Your task to perform on an android device: toggle location history Image 0: 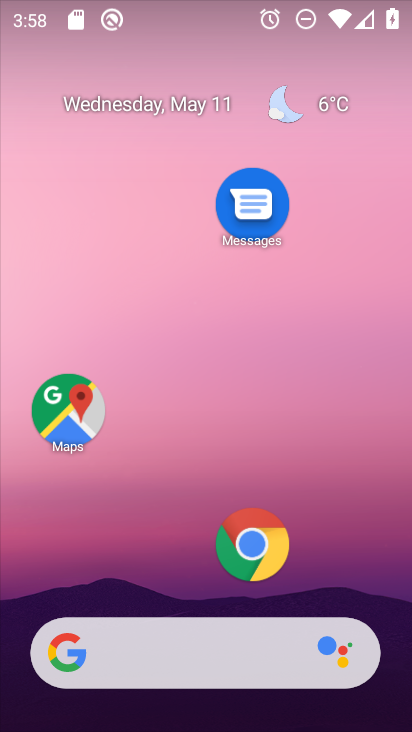
Step 0: drag from (157, 509) to (288, 63)
Your task to perform on an android device: toggle location history Image 1: 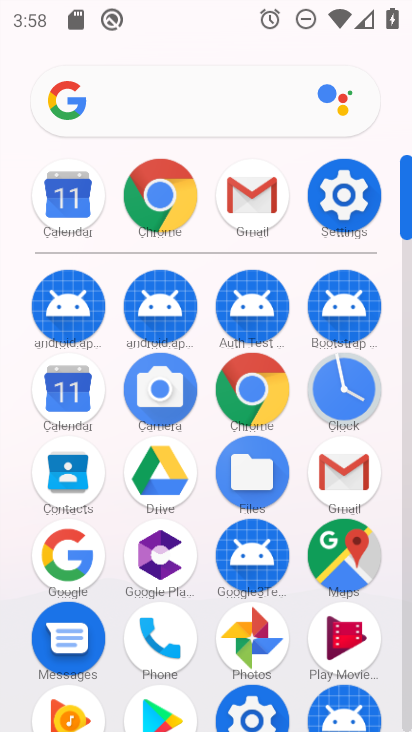
Step 1: click (343, 191)
Your task to perform on an android device: toggle location history Image 2: 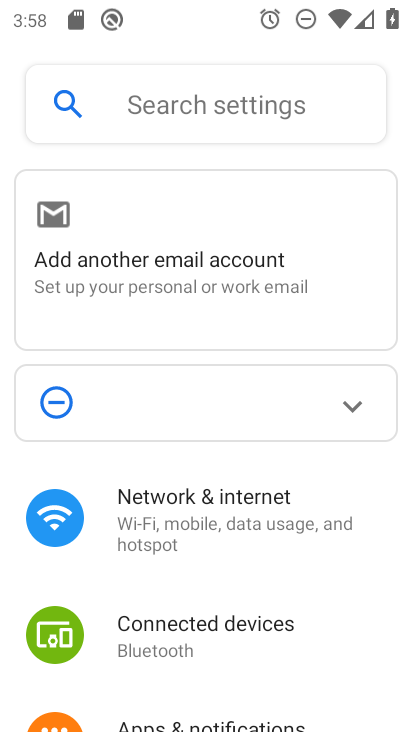
Step 2: drag from (184, 628) to (360, 50)
Your task to perform on an android device: toggle location history Image 3: 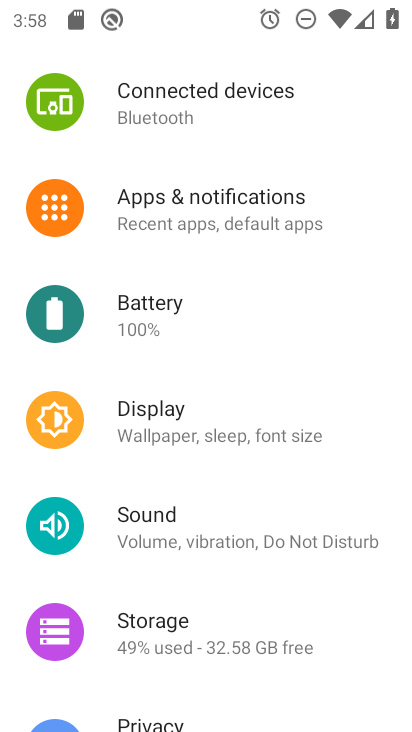
Step 3: drag from (198, 679) to (325, 109)
Your task to perform on an android device: toggle location history Image 4: 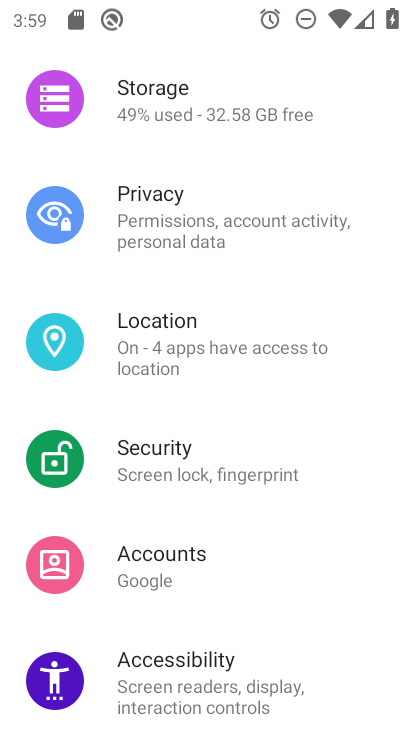
Step 4: click (154, 354)
Your task to perform on an android device: toggle location history Image 5: 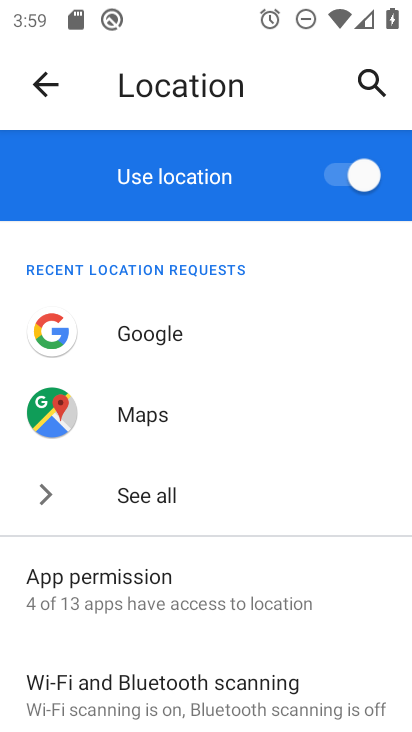
Step 5: drag from (193, 679) to (301, 177)
Your task to perform on an android device: toggle location history Image 6: 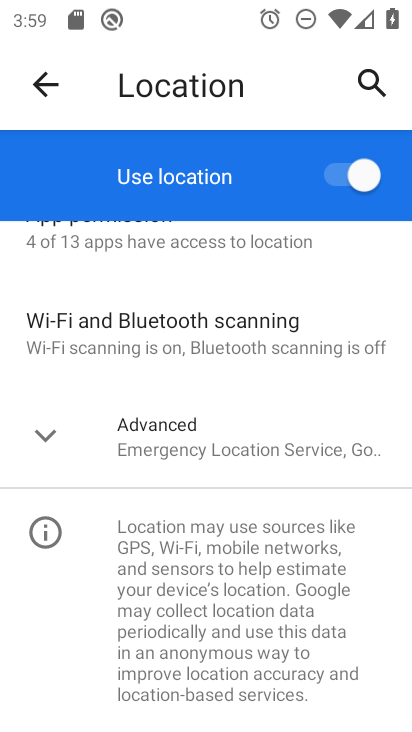
Step 6: click (177, 446)
Your task to perform on an android device: toggle location history Image 7: 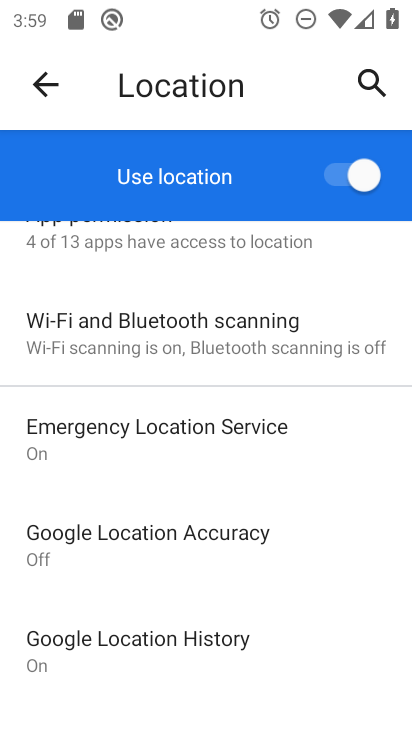
Step 7: click (150, 639)
Your task to perform on an android device: toggle location history Image 8: 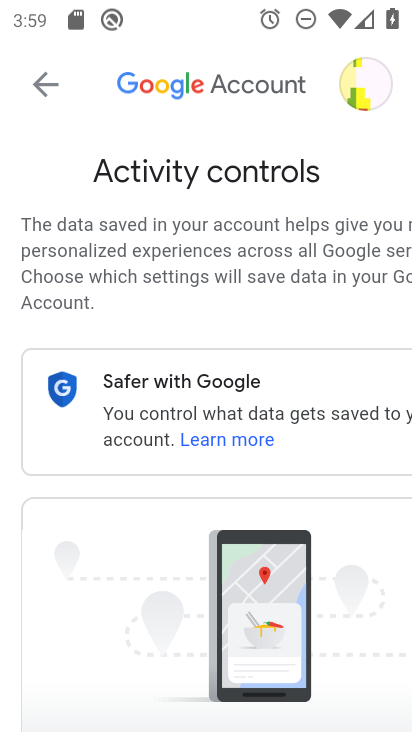
Step 8: drag from (164, 610) to (274, 32)
Your task to perform on an android device: toggle location history Image 9: 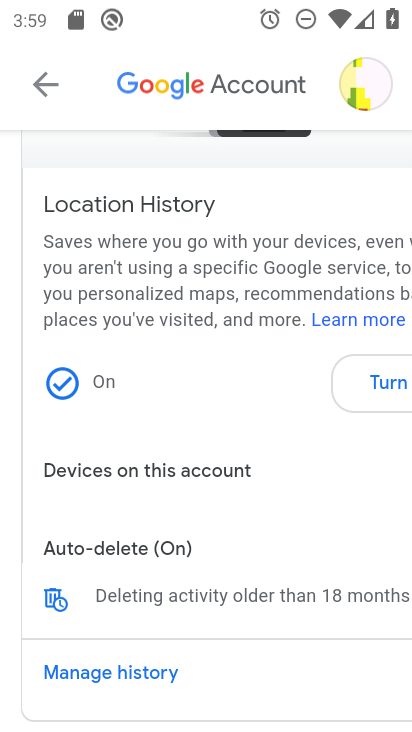
Step 9: drag from (282, 492) to (67, 465)
Your task to perform on an android device: toggle location history Image 10: 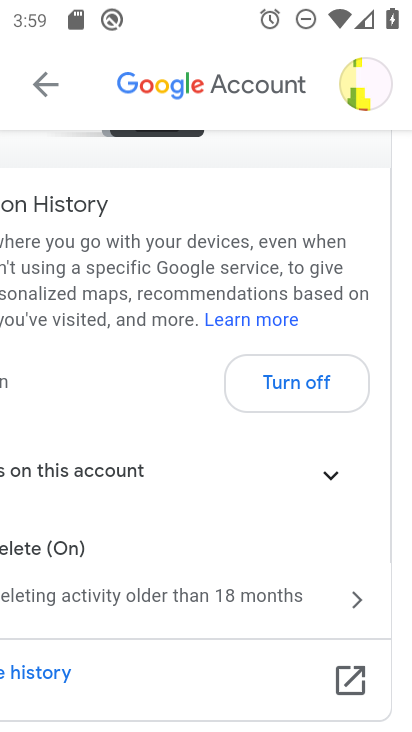
Step 10: click (283, 378)
Your task to perform on an android device: toggle location history Image 11: 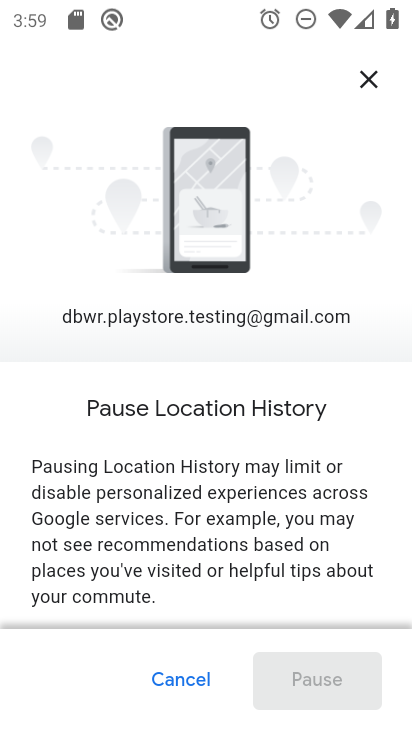
Step 11: drag from (230, 585) to (317, 42)
Your task to perform on an android device: toggle location history Image 12: 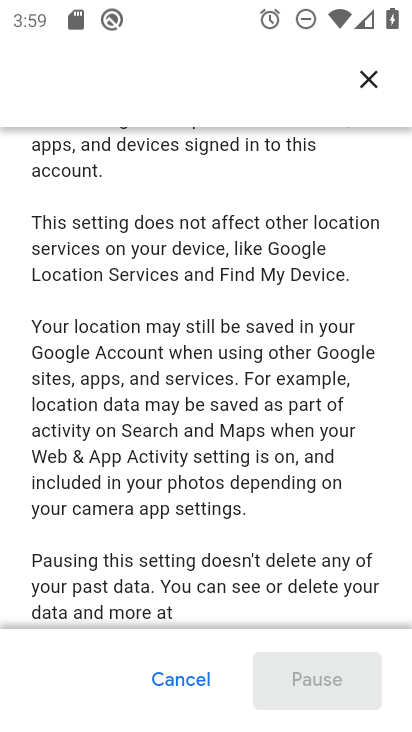
Step 12: drag from (220, 547) to (355, 11)
Your task to perform on an android device: toggle location history Image 13: 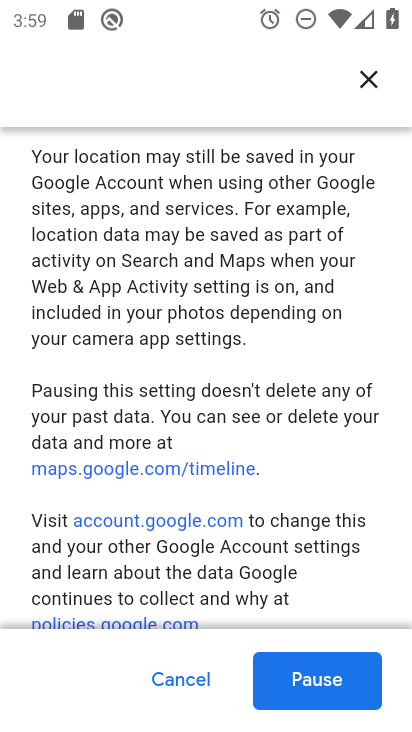
Step 13: click (311, 683)
Your task to perform on an android device: toggle location history Image 14: 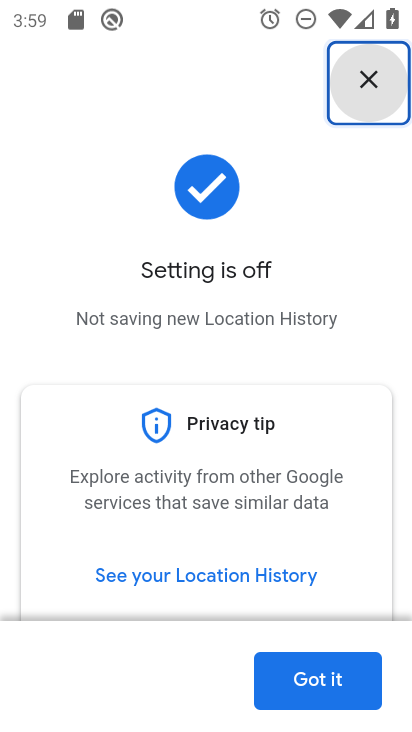
Step 14: task complete